Your task to perform on an android device: Search for sushi restaurants on Maps Image 0: 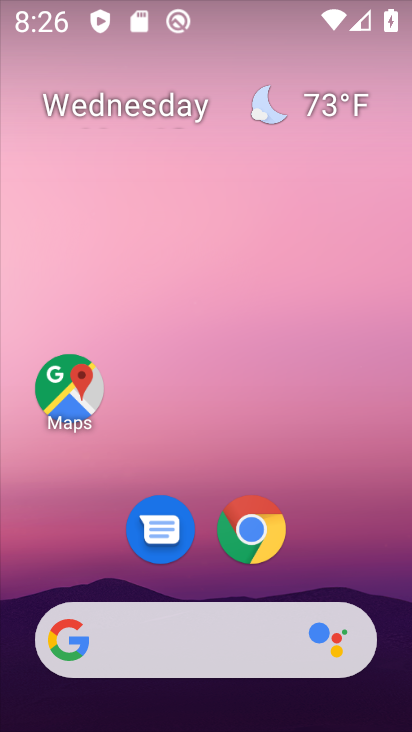
Step 0: drag from (349, 557) to (354, 262)
Your task to perform on an android device: Search for sushi restaurants on Maps Image 1: 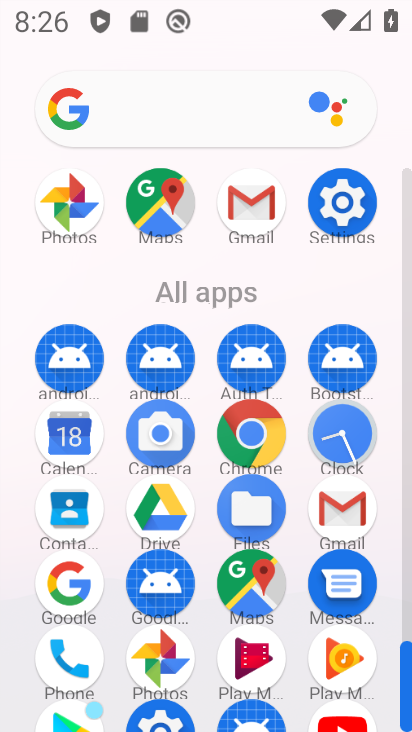
Step 1: click (244, 597)
Your task to perform on an android device: Search for sushi restaurants on Maps Image 2: 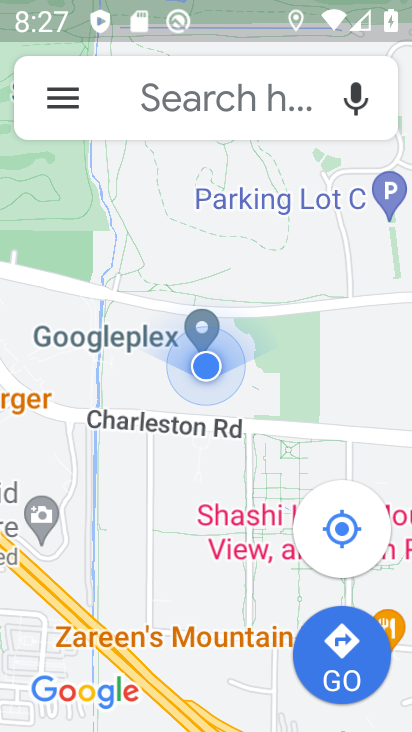
Step 2: click (241, 109)
Your task to perform on an android device: Search for sushi restaurants on Maps Image 3: 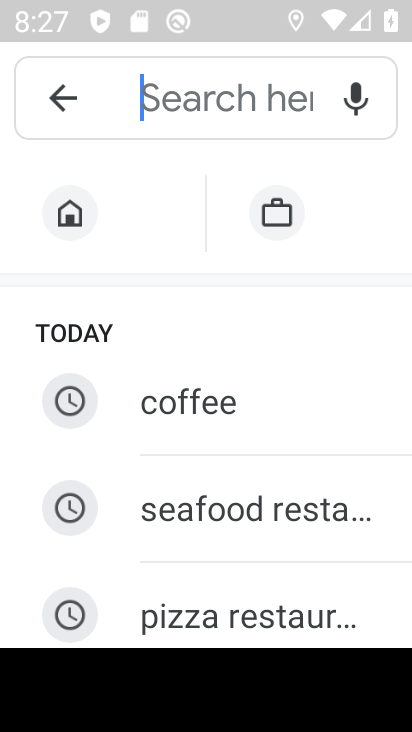
Step 3: type "sushi restaurants"
Your task to perform on an android device: Search for sushi restaurants on Maps Image 4: 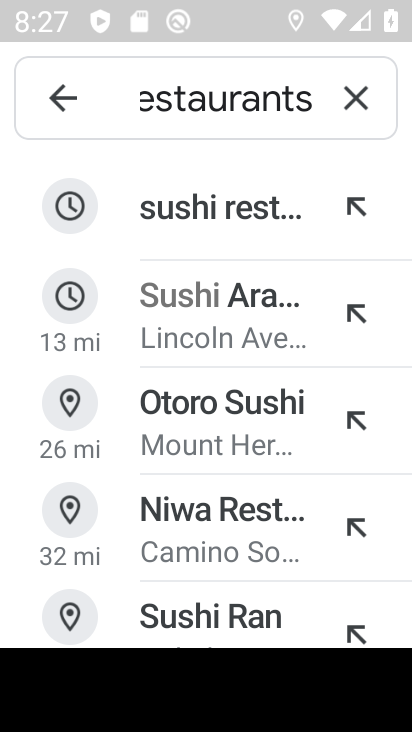
Step 4: click (237, 213)
Your task to perform on an android device: Search for sushi restaurants on Maps Image 5: 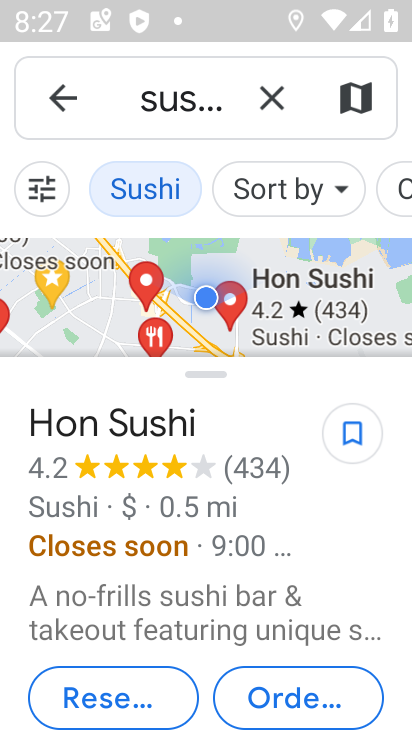
Step 5: task complete